Your task to perform on an android device: change the clock style Image 0: 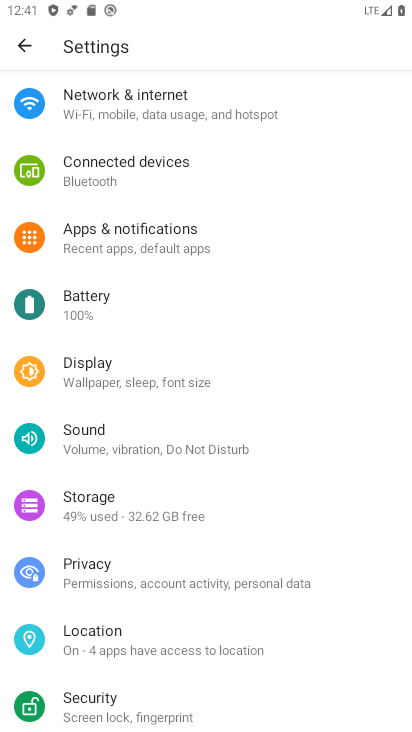
Step 0: press home button
Your task to perform on an android device: change the clock style Image 1: 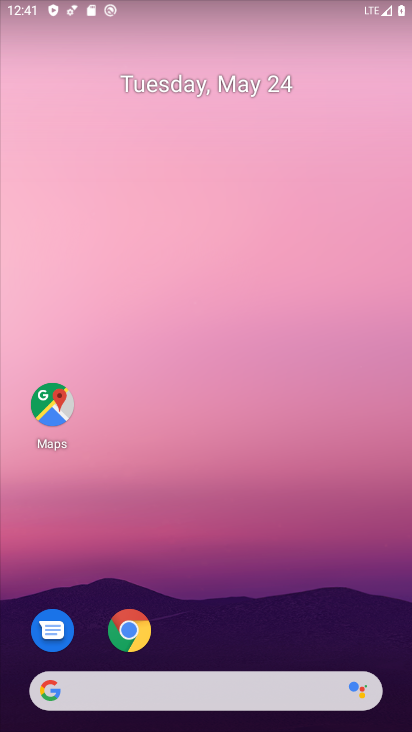
Step 1: drag from (313, 604) to (268, 124)
Your task to perform on an android device: change the clock style Image 2: 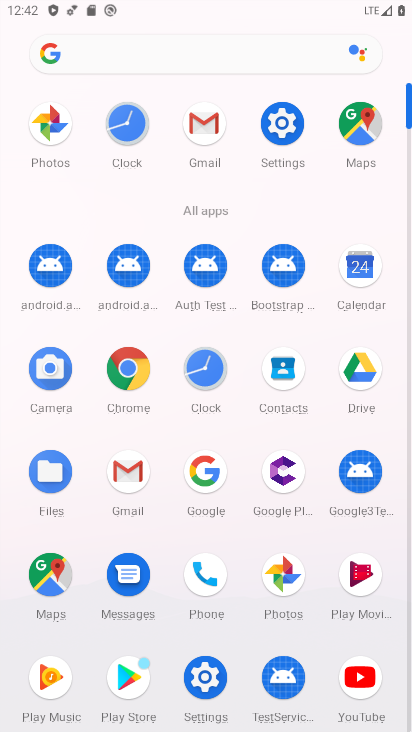
Step 2: click (213, 370)
Your task to perform on an android device: change the clock style Image 3: 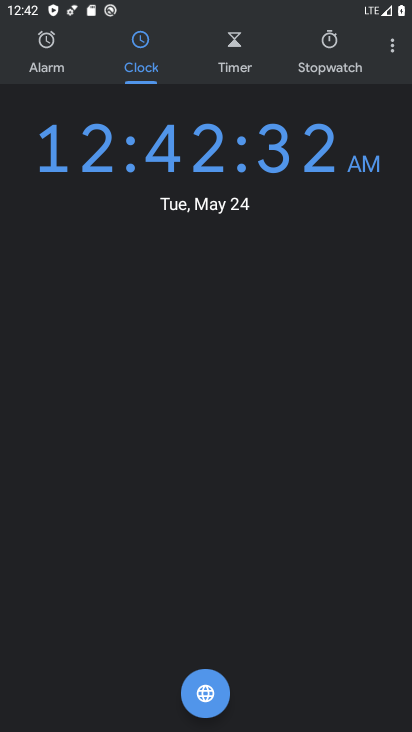
Step 3: click (397, 49)
Your task to perform on an android device: change the clock style Image 4: 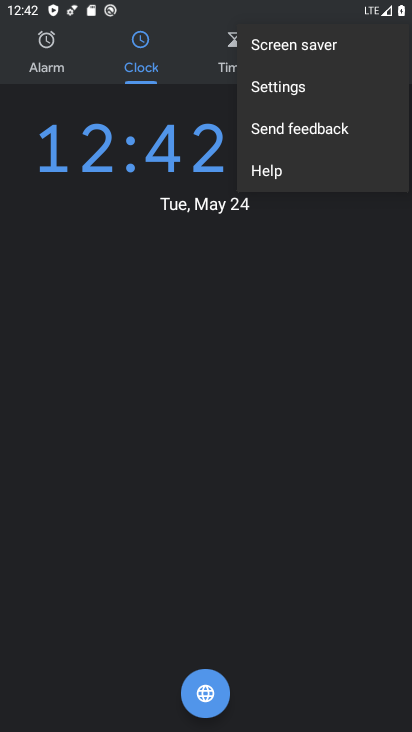
Step 4: click (282, 92)
Your task to perform on an android device: change the clock style Image 5: 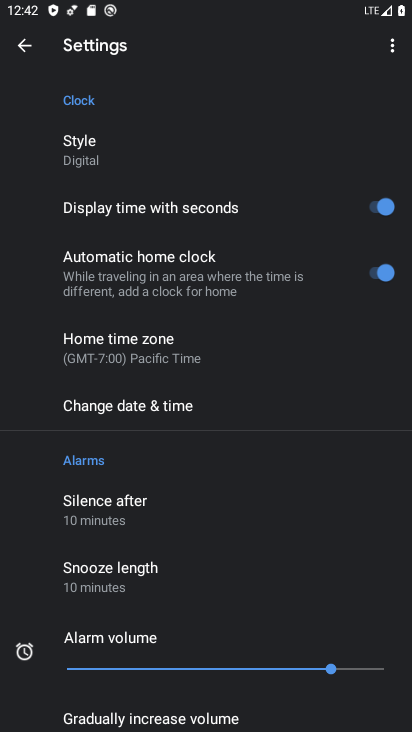
Step 5: click (188, 152)
Your task to perform on an android device: change the clock style Image 6: 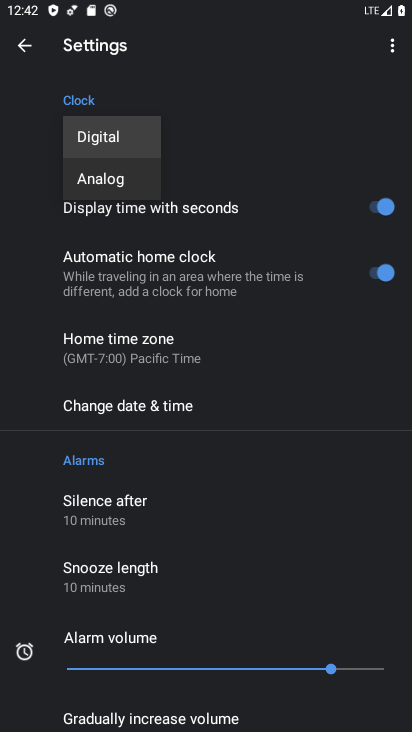
Step 6: click (109, 190)
Your task to perform on an android device: change the clock style Image 7: 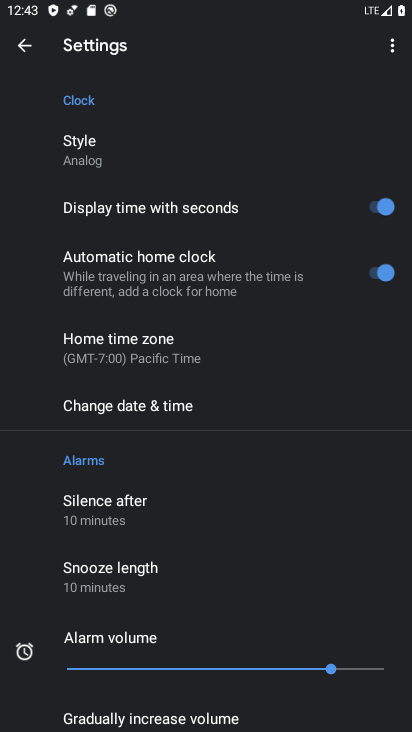
Step 7: task complete